Your task to perform on an android device: Show me the alarms in the clock app Image 0: 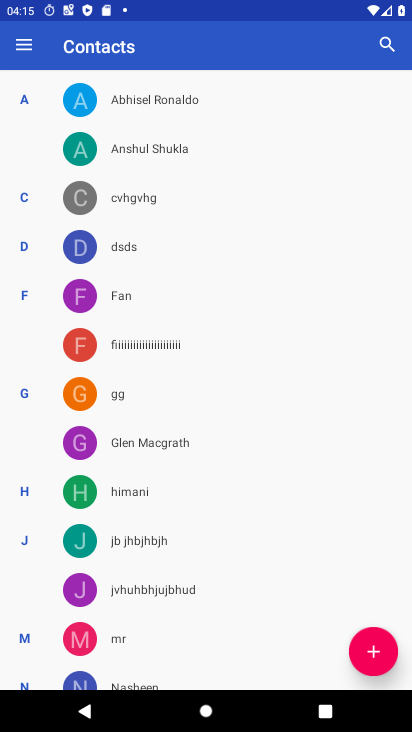
Step 0: press home button
Your task to perform on an android device: Show me the alarms in the clock app Image 1: 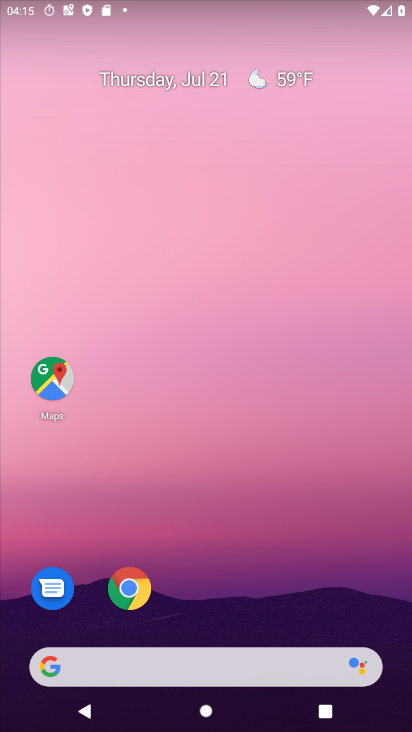
Step 1: drag from (272, 512) to (306, 197)
Your task to perform on an android device: Show me the alarms in the clock app Image 2: 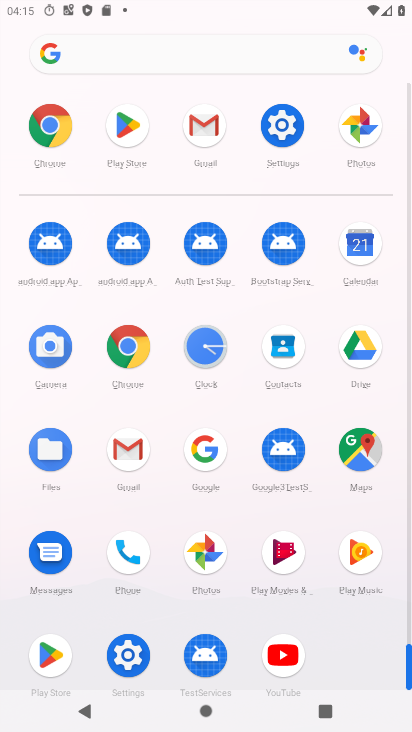
Step 2: click (208, 349)
Your task to perform on an android device: Show me the alarms in the clock app Image 3: 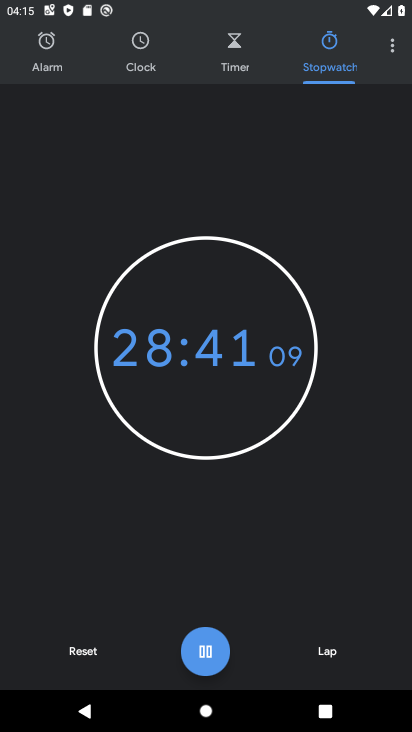
Step 3: click (78, 656)
Your task to perform on an android device: Show me the alarms in the clock app Image 4: 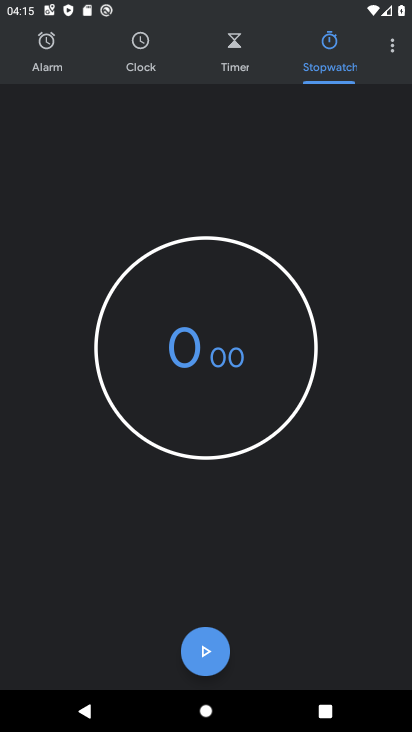
Step 4: click (66, 63)
Your task to perform on an android device: Show me the alarms in the clock app Image 5: 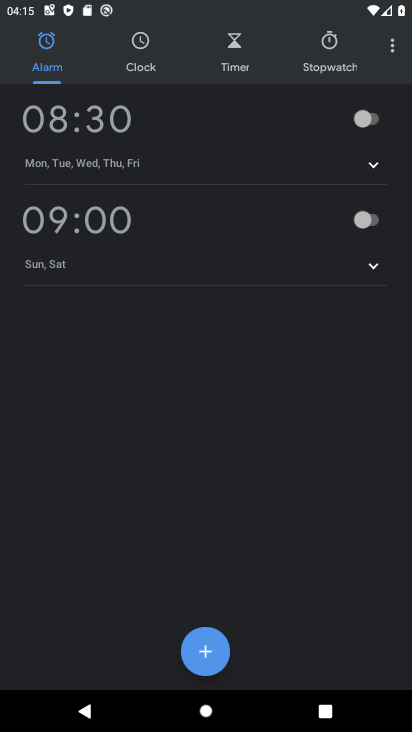
Step 5: task complete